Your task to perform on an android device: Look up the best rated 3d printer on Ali Express Image 0: 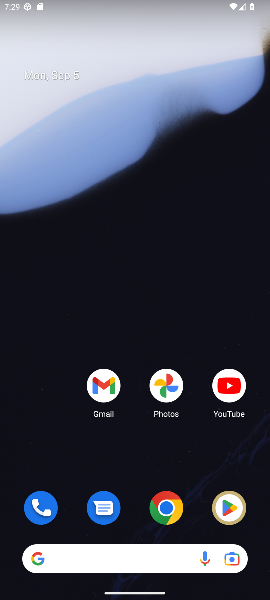
Step 0: click (171, 507)
Your task to perform on an android device: Look up the best rated 3d printer on Ali Express Image 1: 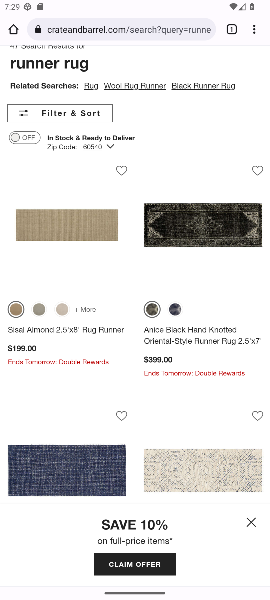
Step 1: click (94, 25)
Your task to perform on an android device: Look up the best rated 3d printer on Ali Express Image 2: 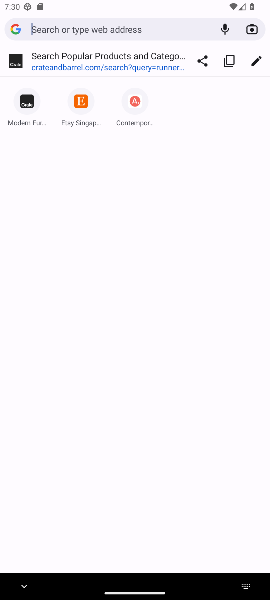
Step 2: type "ali express"
Your task to perform on an android device: Look up the best rated 3d printer on Ali Express Image 3: 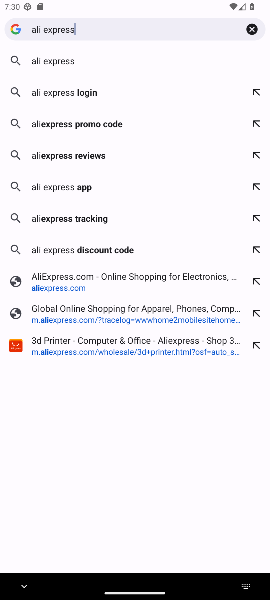
Step 3: click (49, 64)
Your task to perform on an android device: Look up the best rated 3d printer on Ali Express Image 4: 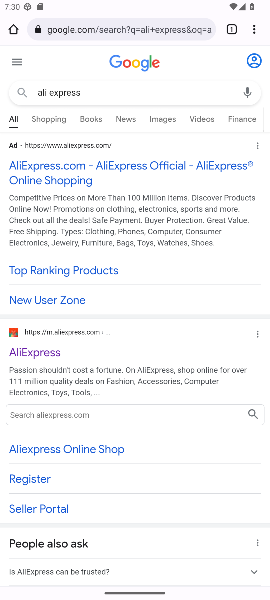
Step 4: click (32, 349)
Your task to perform on an android device: Look up the best rated 3d printer on Ali Express Image 5: 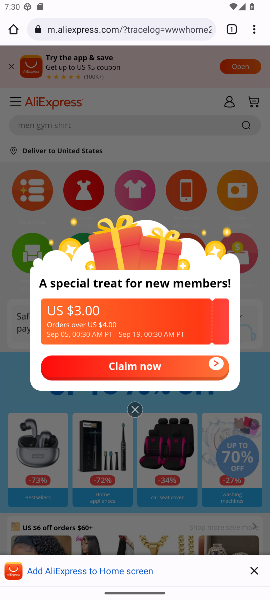
Step 5: click (138, 411)
Your task to perform on an android device: Look up the best rated 3d printer on Ali Express Image 6: 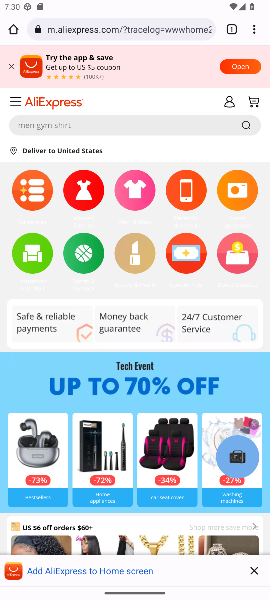
Step 6: click (117, 127)
Your task to perform on an android device: Look up the best rated 3d printer on Ali Express Image 7: 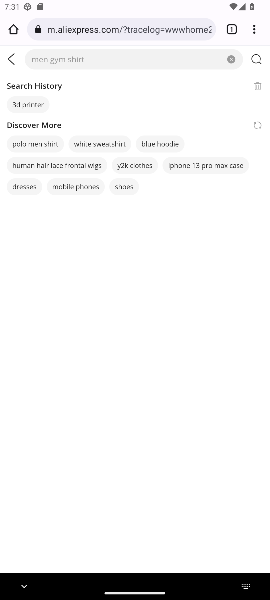
Step 7: type "best rated 3d printer "
Your task to perform on an android device: Look up the best rated 3d printer on Ali Express Image 8: 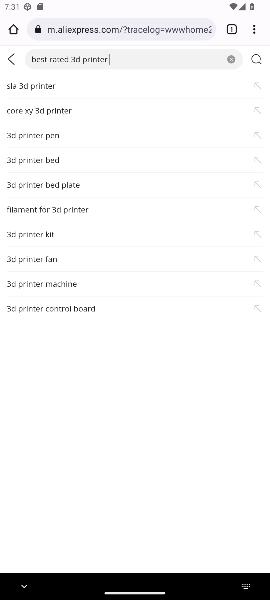
Step 8: click (124, 60)
Your task to perform on an android device: Look up the best rated 3d printer on Ali Express Image 9: 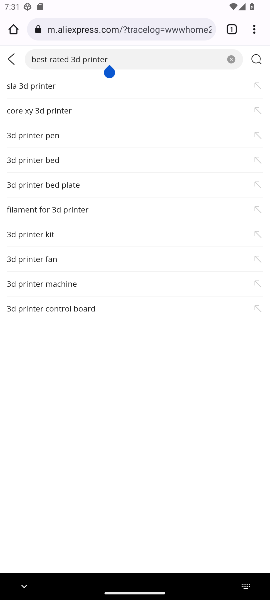
Step 9: click (258, 61)
Your task to perform on an android device: Look up the best rated 3d printer on Ali Express Image 10: 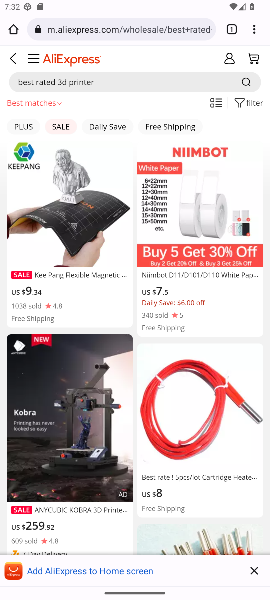
Step 10: drag from (138, 339) to (138, 198)
Your task to perform on an android device: Look up the best rated 3d printer on Ali Express Image 11: 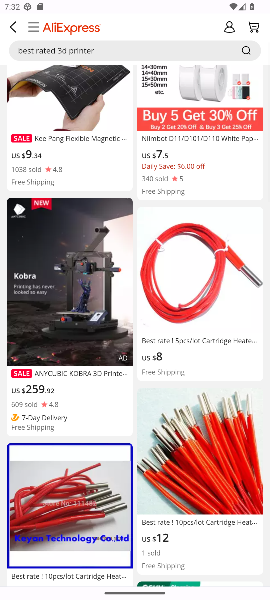
Step 11: drag from (138, 198) to (125, 522)
Your task to perform on an android device: Look up the best rated 3d printer on Ali Express Image 12: 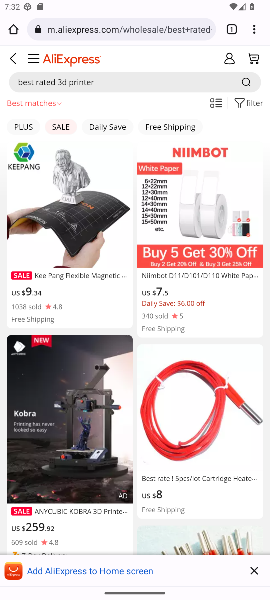
Step 12: click (96, 78)
Your task to perform on an android device: Look up the best rated 3d printer on Ali Express Image 13: 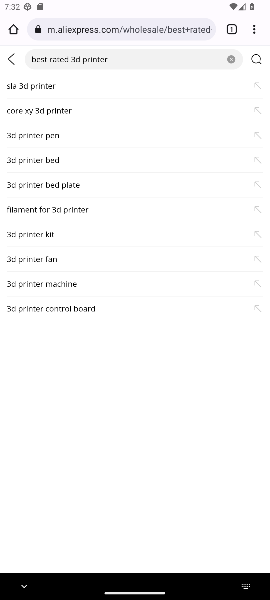
Step 13: click (227, 59)
Your task to perform on an android device: Look up the best rated 3d printer on Ali Express Image 14: 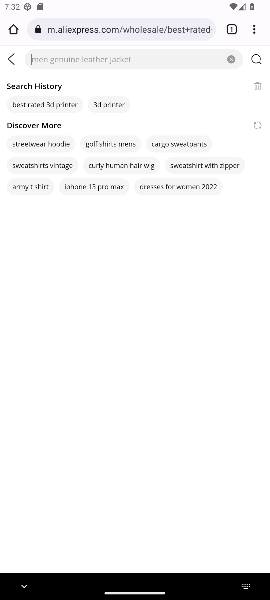
Step 14: type "best rated 3d printer "
Your task to perform on an android device: Look up the best rated 3d printer on Ali Express Image 15: 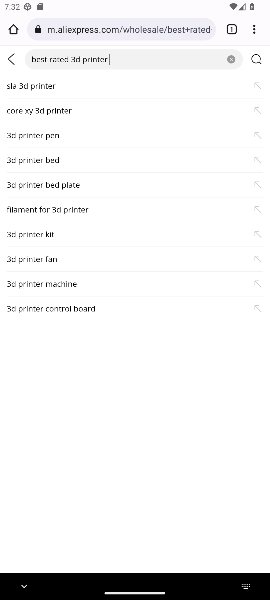
Step 15: click (254, 59)
Your task to perform on an android device: Look up the best rated 3d printer on Ali Express Image 16: 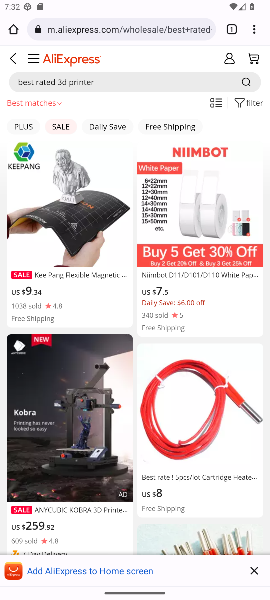
Step 16: task complete